Your task to perform on an android device: open a bookmark in the chrome app Image 0: 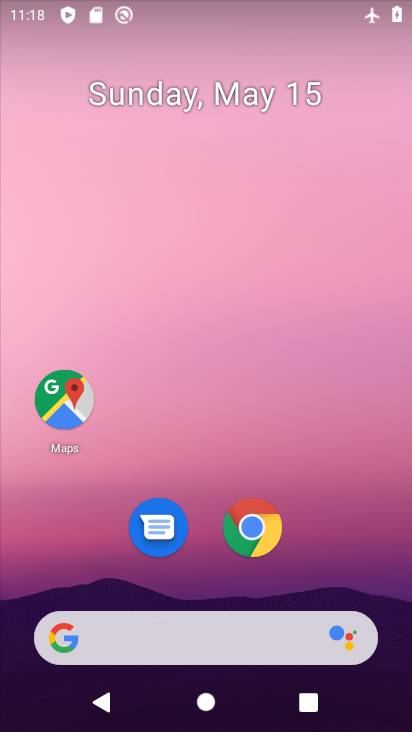
Step 0: drag from (321, 441) to (274, 27)
Your task to perform on an android device: open a bookmark in the chrome app Image 1: 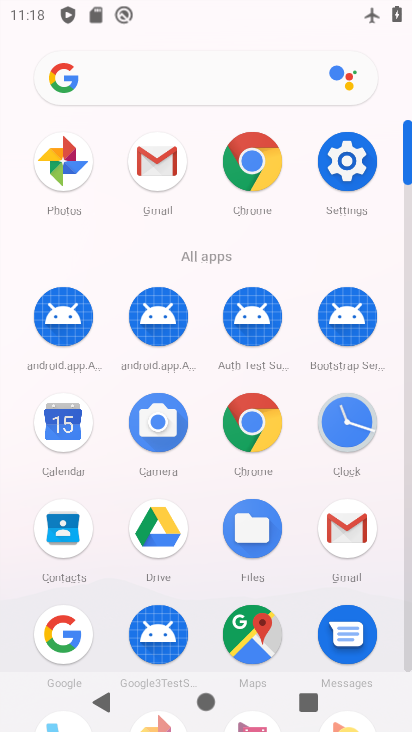
Step 1: drag from (14, 474) to (17, 243)
Your task to perform on an android device: open a bookmark in the chrome app Image 2: 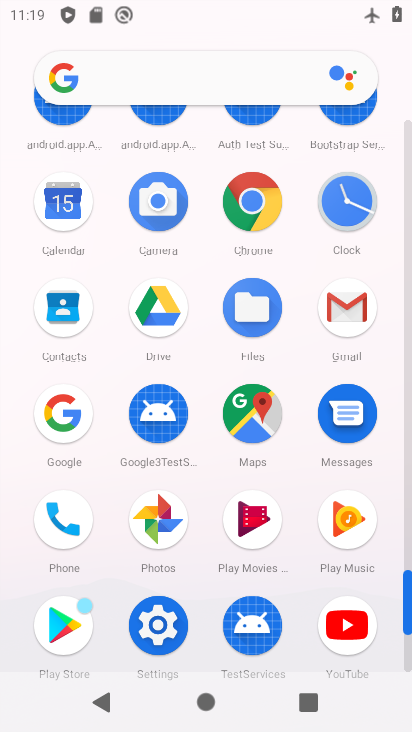
Step 2: click (249, 201)
Your task to perform on an android device: open a bookmark in the chrome app Image 3: 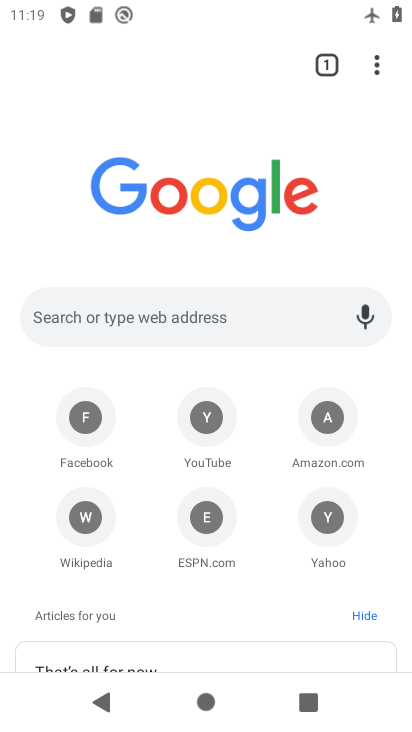
Step 3: task complete